Your task to perform on an android device: change text size in settings app Image 0: 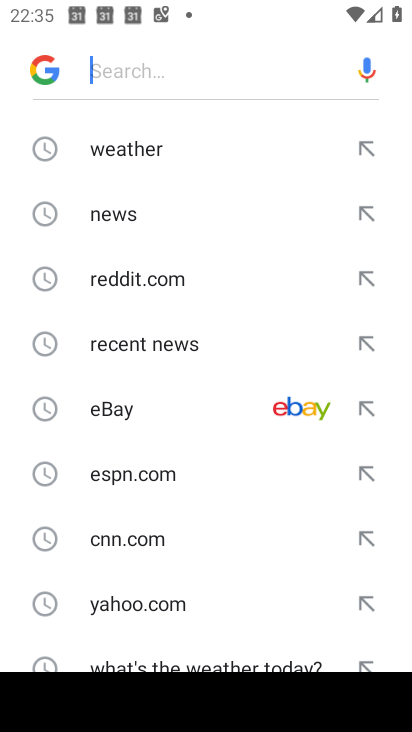
Step 0: press home button
Your task to perform on an android device: change text size in settings app Image 1: 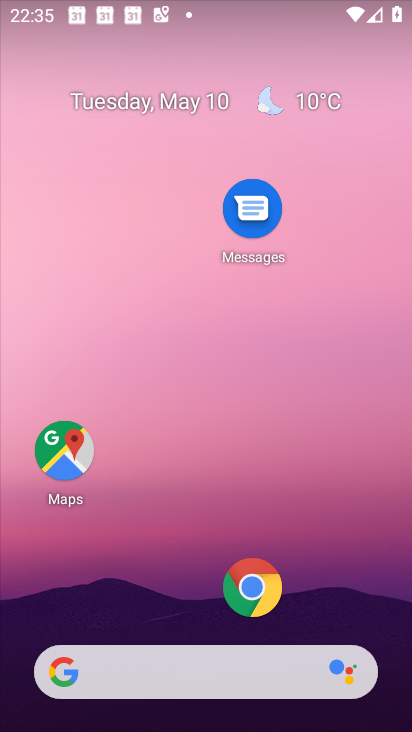
Step 1: drag from (165, 591) to (212, 99)
Your task to perform on an android device: change text size in settings app Image 2: 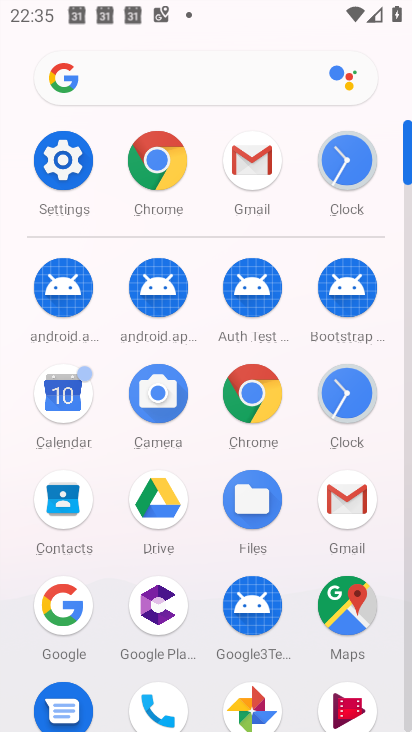
Step 2: click (55, 167)
Your task to perform on an android device: change text size in settings app Image 3: 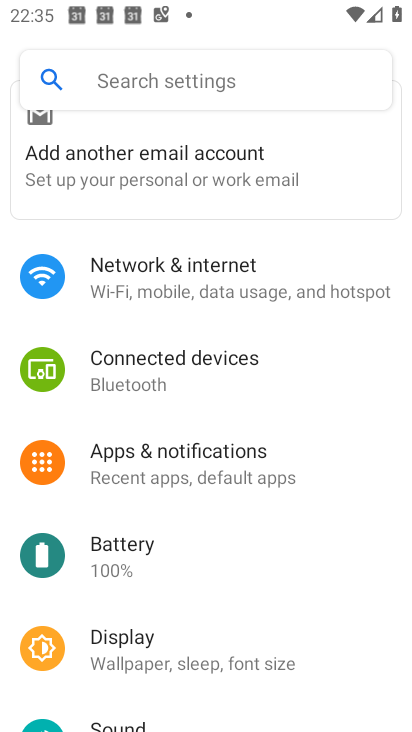
Step 3: click (150, 641)
Your task to perform on an android device: change text size in settings app Image 4: 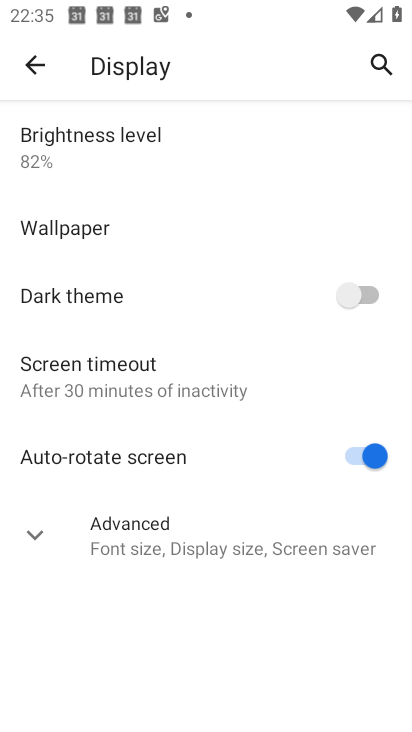
Step 4: click (143, 541)
Your task to perform on an android device: change text size in settings app Image 5: 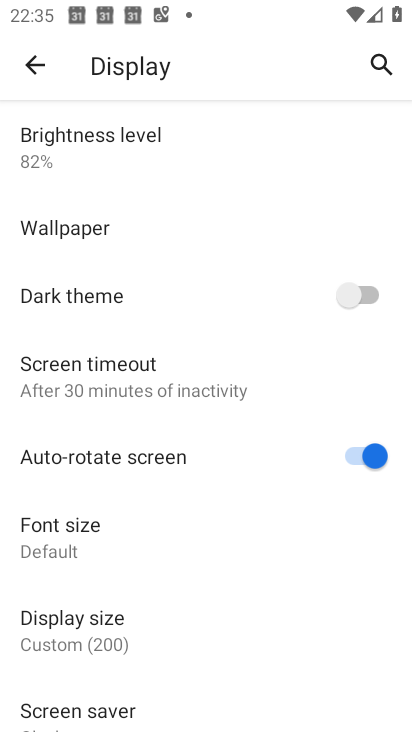
Step 5: click (91, 558)
Your task to perform on an android device: change text size in settings app Image 6: 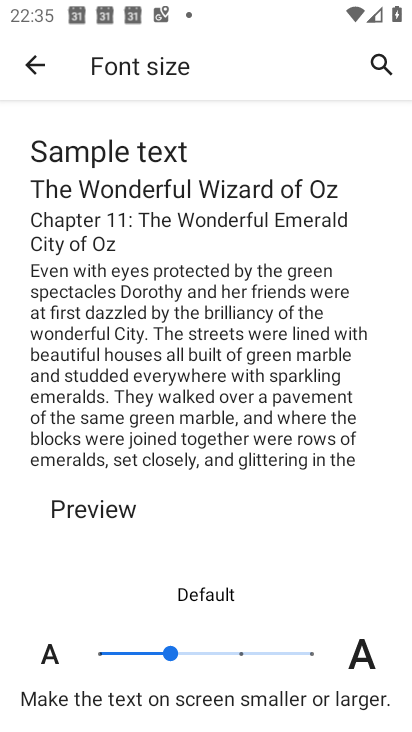
Step 6: click (244, 652)
Your task to perform on an android device: change text size in settings app Image 7: 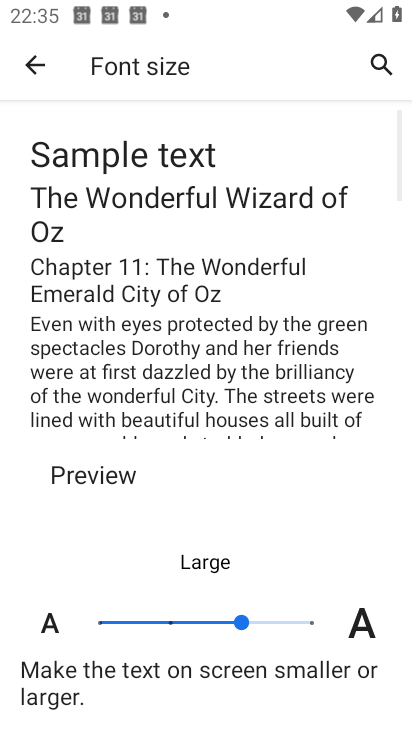
Step 7: task complete